Your task to perform on an android device: toggle translation in the chrome app Image 0: 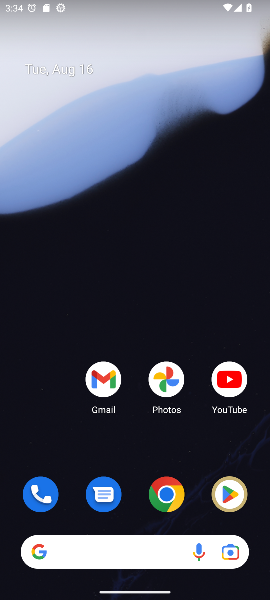
Step 0: drag from (152, 524) to (81, 85)
Your task to perform on an android device: toggle translation in the chrome app Image 1: 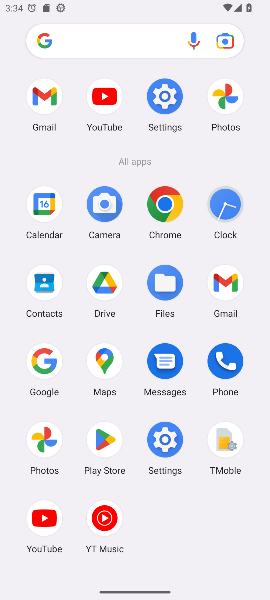
Step 1: click (167, 199)
Your task to perform on an android device: toggle translation in the chrome app Image 2: 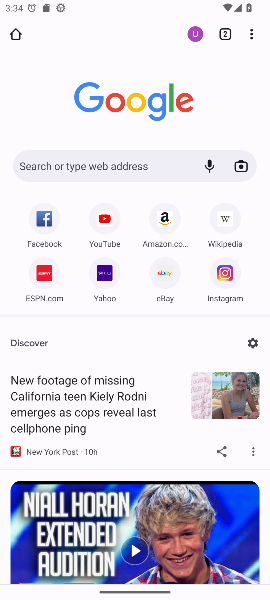
Step 2: click (253, 35)
Your task to perform on an android device: toggle translation in the chrome app Image 3: 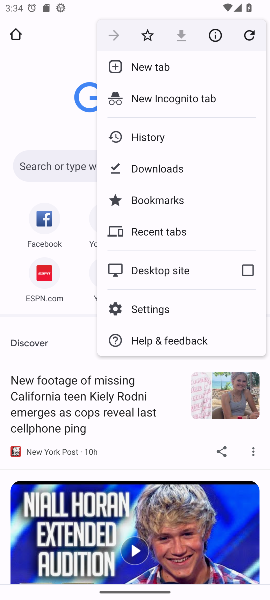
Step 3: click (179, 303)
Your task to perform on an android device: toggle translation in the chrome app Image 4: 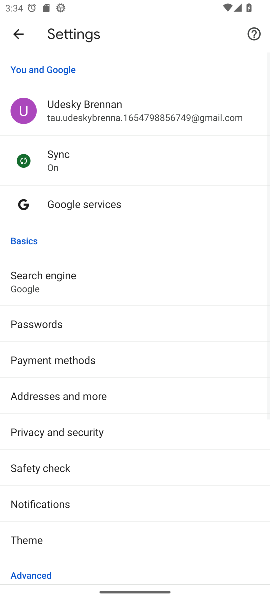
Step 4: drag from (124, 525) to (96, 113)
Your task to perform on an android device: toggle translation in the chrome app Image 5: 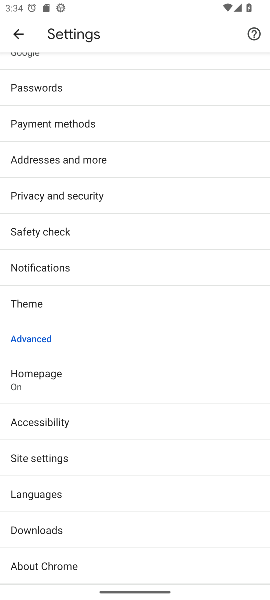
Step 5: click (36, 494)
Your task to perform on an android device: toggle translation in the chrome app Image 6: 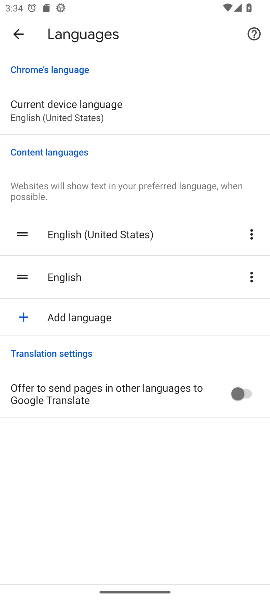
Step 6: click (236, 394)
Your task to perform on an android device: toggle translation in the chrome app Image 7: 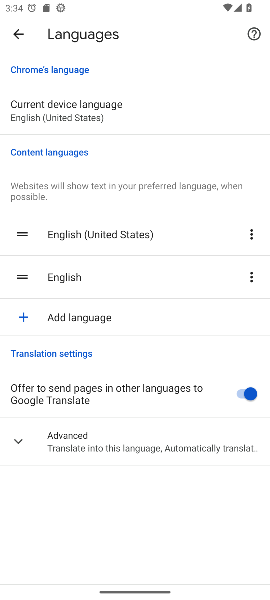
Step 7: task complete